Your task to perform on an android device: Search for seafood restaurants on Google Maps Image 0: 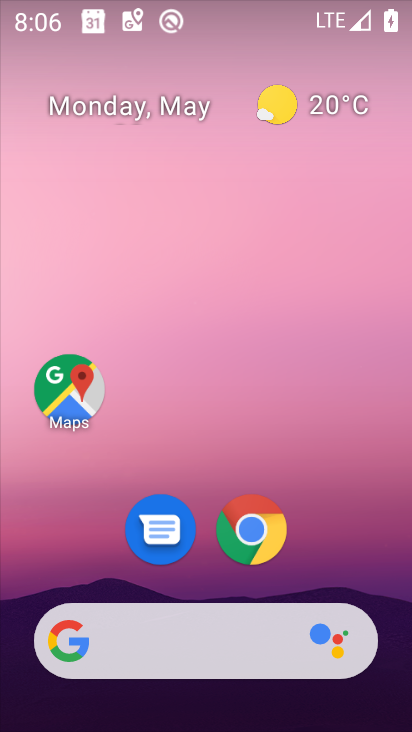
Step 0: press home button
Your task to perform on an android device: Search for seafood restaurants on Google Maps Image 1: 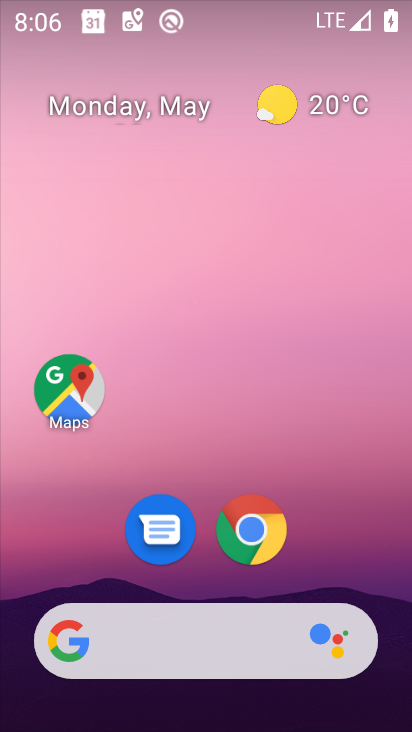
Step 1: click (81, 382)
Your task to perform on an android device: Search for seafood restaurants on Google Maps Image 2: 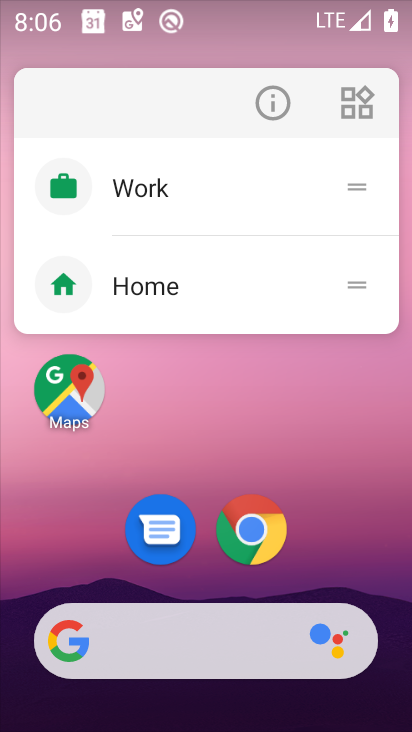
Step 2: click (83, 380)
Your task to perform on an android device: Search for seafood restaurants on Google Maps Image 3: 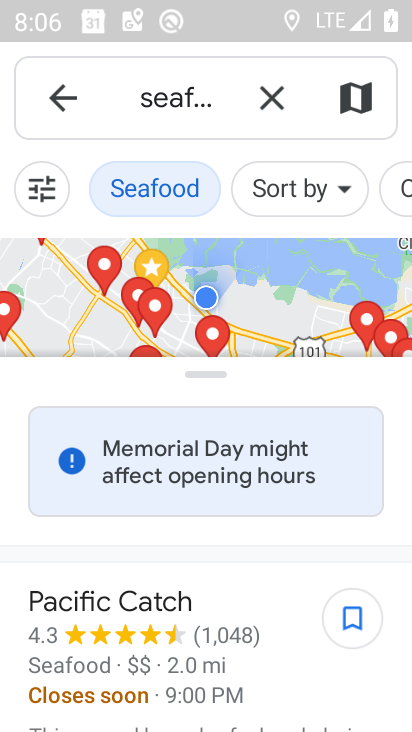
Step 3: task complete